Your task to perform on an android device: toggle wifi Image 0: 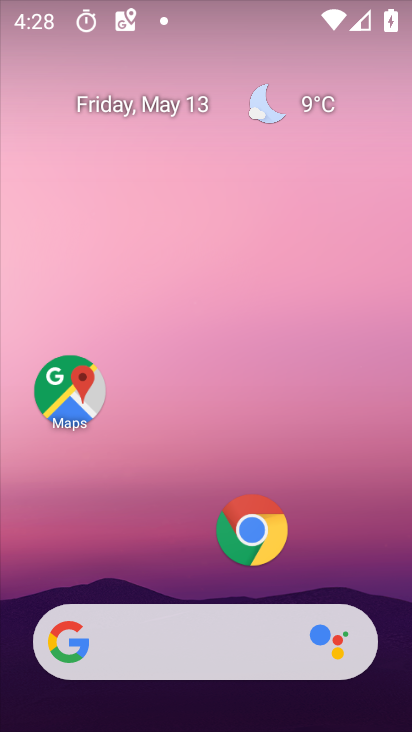
Step 0: drag from (195, 584) to (196, 38)
Your task to perform on an android device: toggle wifi Image 1: 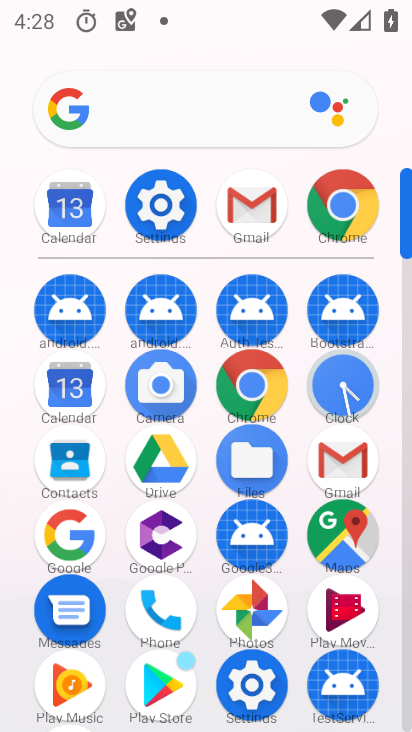
Step 1: click (159, 203)
Your task to perform on an android device: toggle wifi Image 2: 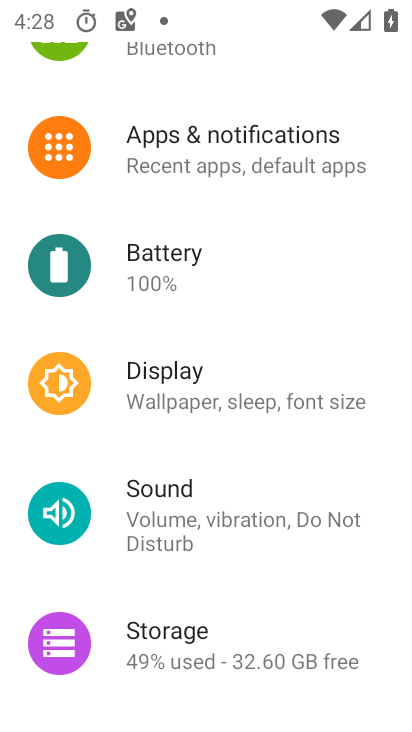
Step 2: drag from (196, 98) to (209, 511)
Your task to perform on an android device: toggle wifi Image 3: 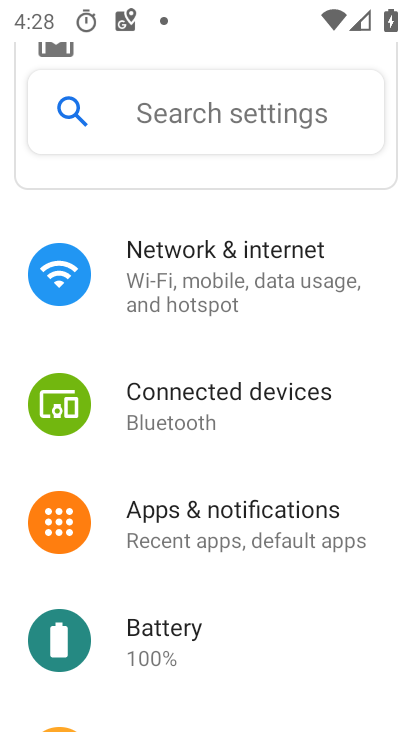
Step 3: click (205, 269)
Your task to perform on an android device: toggle wifi Image 4: 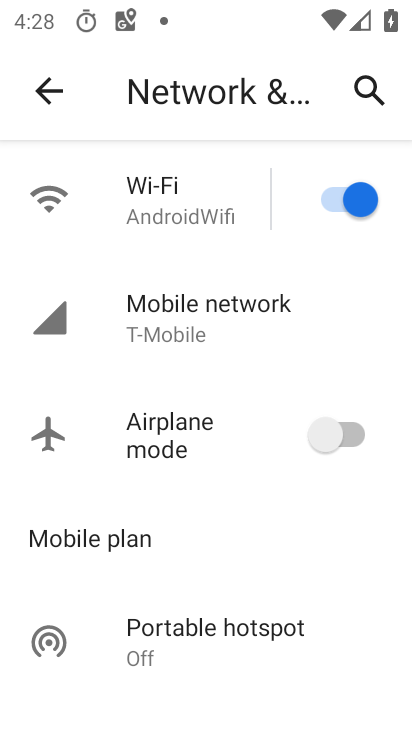
Step 4: click (211, 199)
Your task to perform on an android device: toggle wifi Image 5: 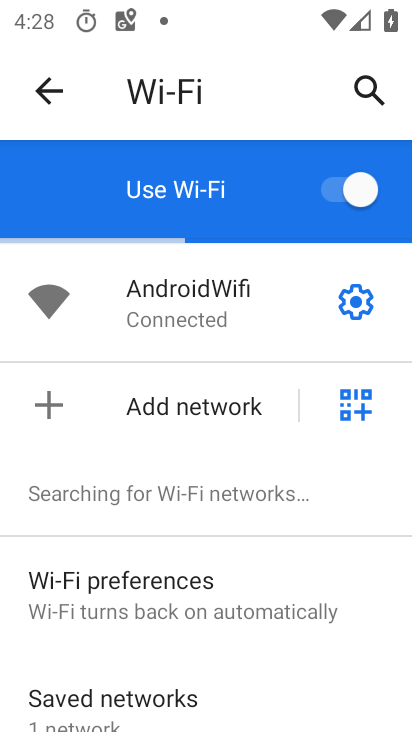
Step 5: task complete